Your task to perform on an android device: open chrome privacy settings Image 0: 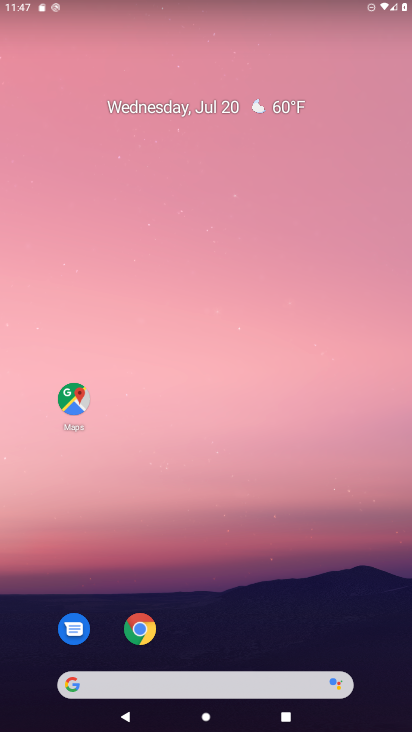
Step 0: drag from (205, 628) to (239, 153)
Your task to perform on an android device: open chrome privacy settings Image 1: 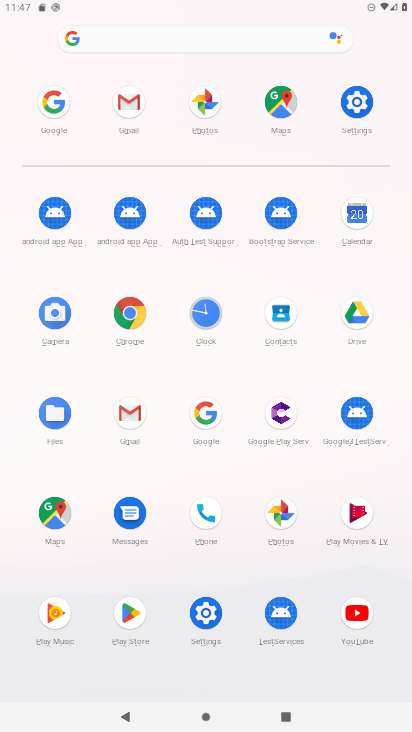
Step 1: click (119, 315)
Your task to perform on an android device: open chrome privacy settings Image 2: 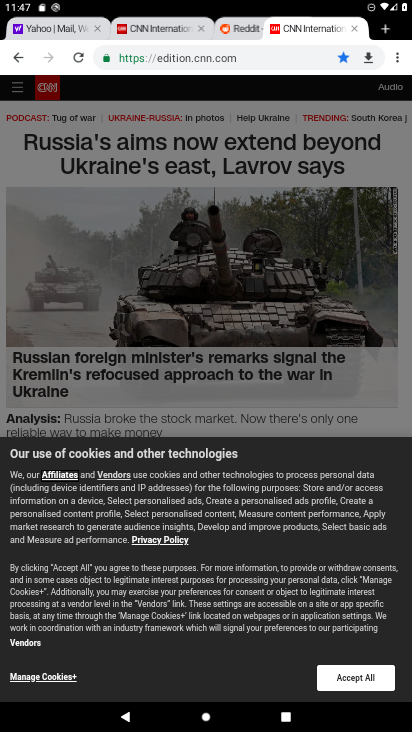
Step 2: click (395, 57)
Your task to perform on an android device: open chrome privacy settings Image 3: 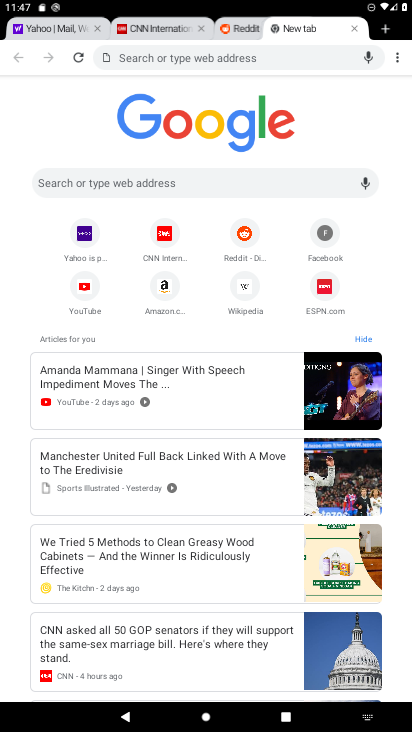
Step 3: drag from (400, 57) to (279, 258)
Your task to perform on an android device: open chrome privacy settings Image 4: 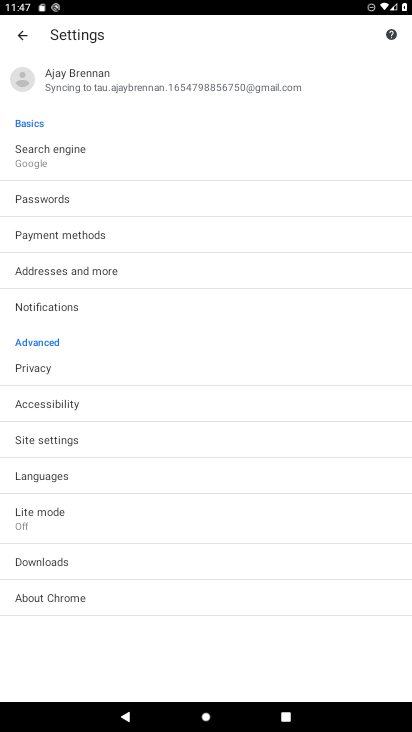
Step 4: click (53, 364)
Your task to perform on an android device: open chrome privacy settings Image 5: 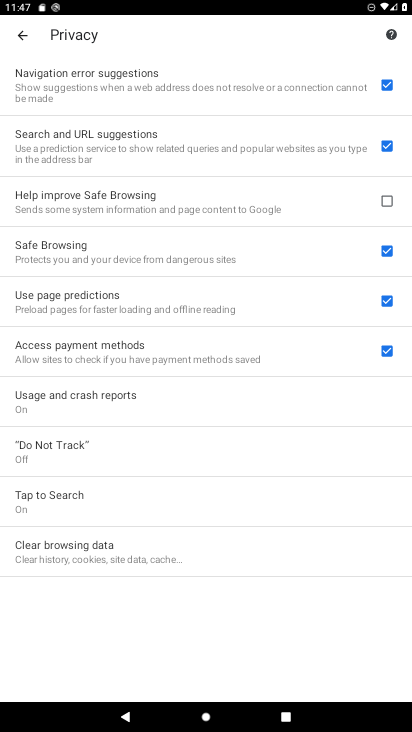
Step 5: task complete